Your task to perform on an android device: Is it going to rain this weekend? Image 0: 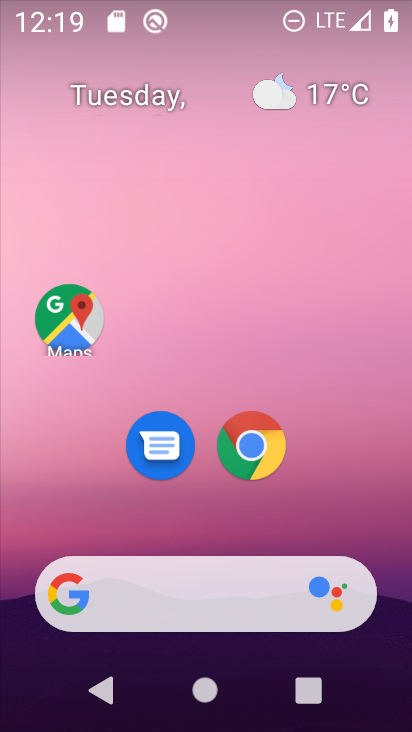
Step 0: click (313, 88)
Your task to perform on an android device: Is it going to rain this weekend? Image 1: 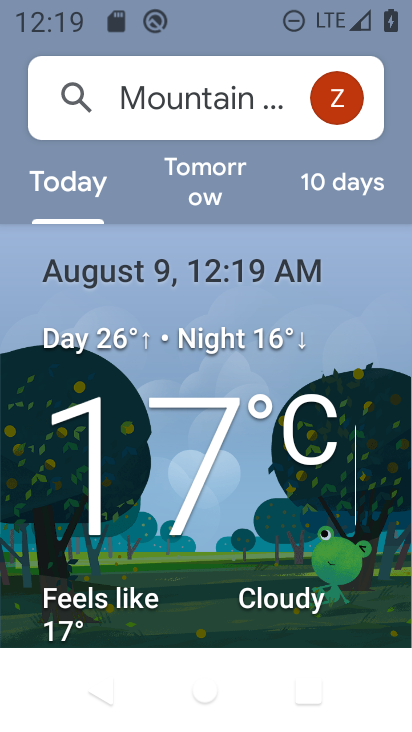
Step 1: click (339, 183)
Your task to perform on an android device: Is it going to rain this weekend? Image 2: 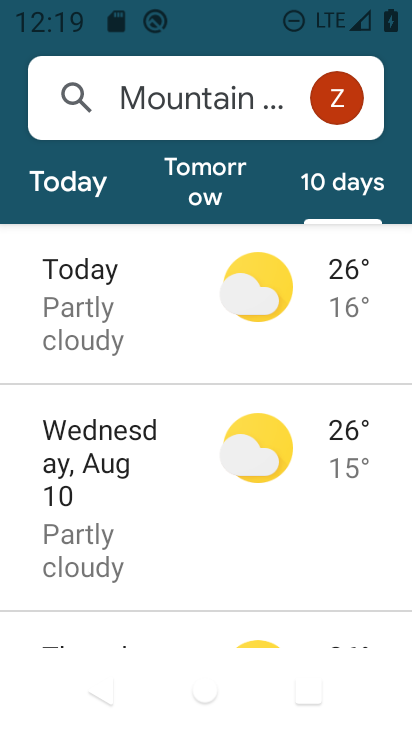
Step 2: task complete